Your task to perform on an android device: Clear the cart on costco. Search for "razer blackwidow" on costco, select the first entry, add it to the cart, then select checkout. Image 0: 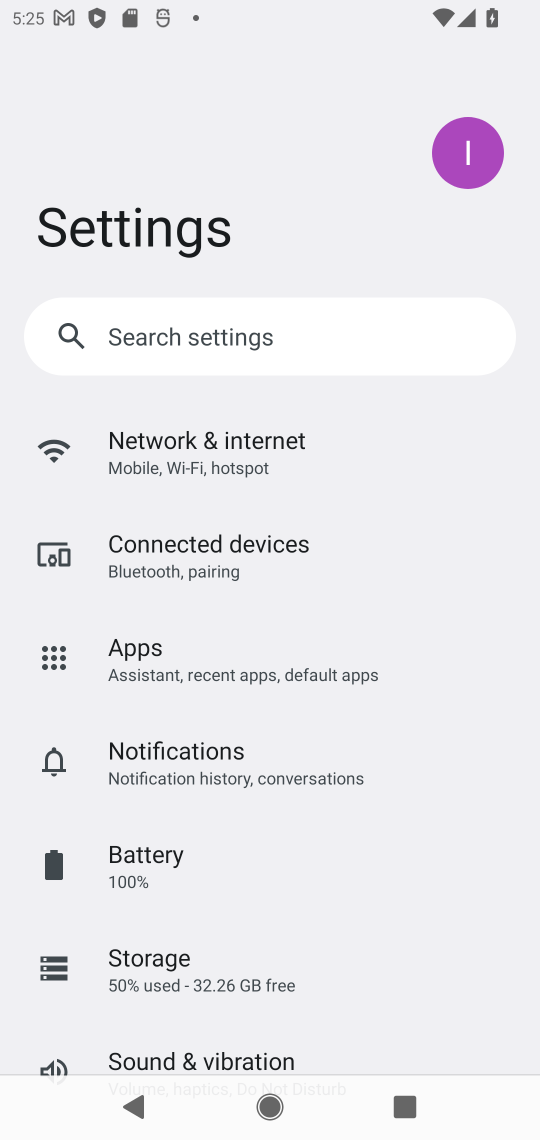
Step 0: press home button
Your task to perform on an android device: Clear the cart on costco. Search for "razer blackwidow" on costco, select the first entry, add it to the cart, then select checkout. Image 1: 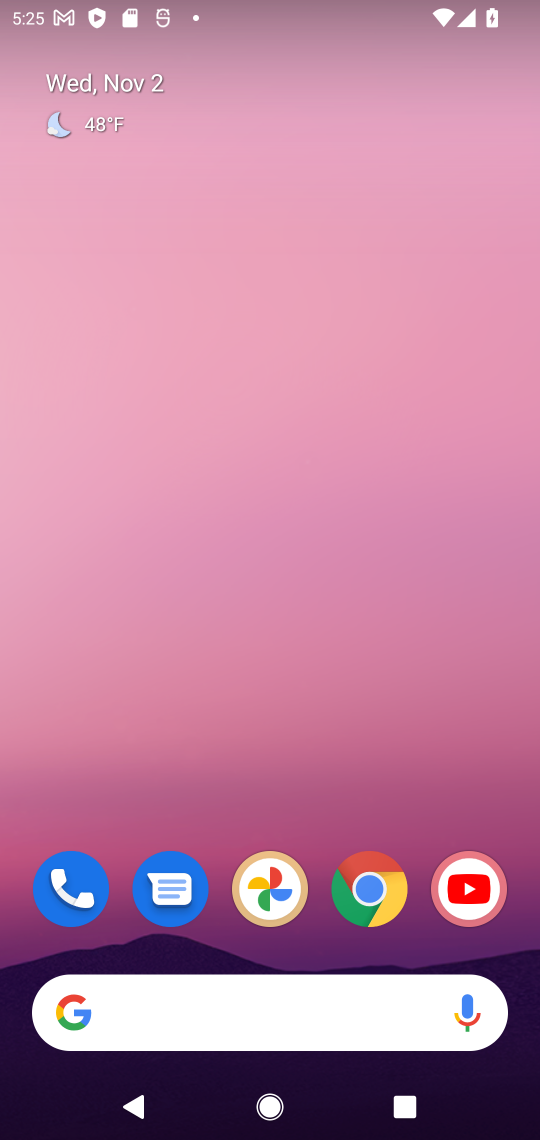
Step 1: click (343, 895)
Your task to perform on an android device: Clear the cart on costco. Search for "razer blackwidow" on costco, select the first entry, add it to the cart, then select checkout. Image 2: 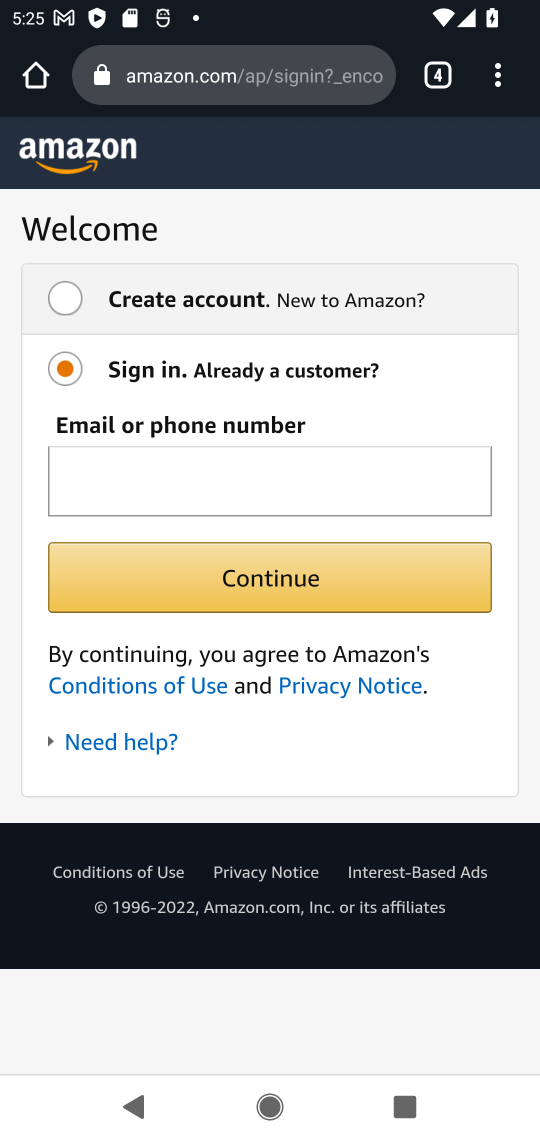
Step 2: click (253, 99)
Your task to perform on an android device: Clear the cart on costco. Search for "razer blackwidow" on costco, select the first entry, add it to the cart, then select checkout. Image 3: 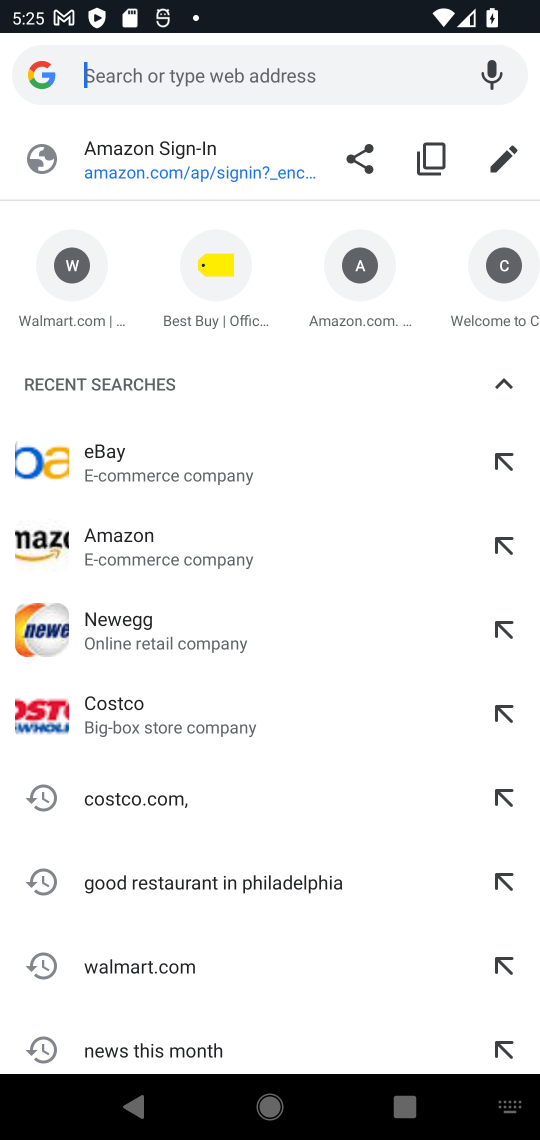
Step 3: type "costco"
Your task to perform on an android device: Clear the cart on costco. Search for "razer blackwidow" on costco, select the first entry, add it to the cart, then select checkout. Image 4: 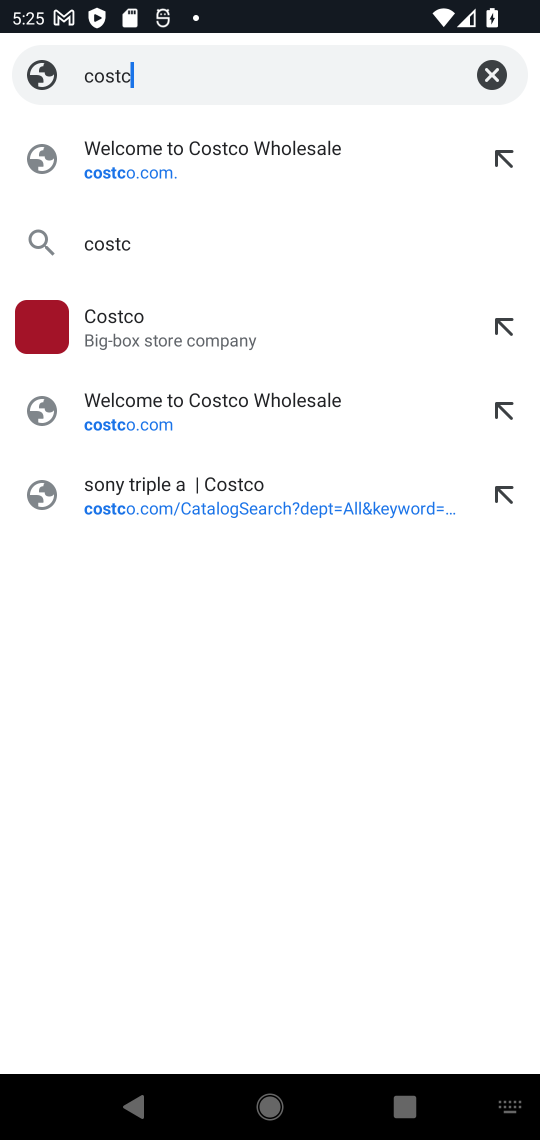
Step 4: press enter
Your task to perform on an android device: Clear the cart on costco. Search for "razer blackwidow" on costco, select the first entry, add it to the cart, then select checkout. Image 5: 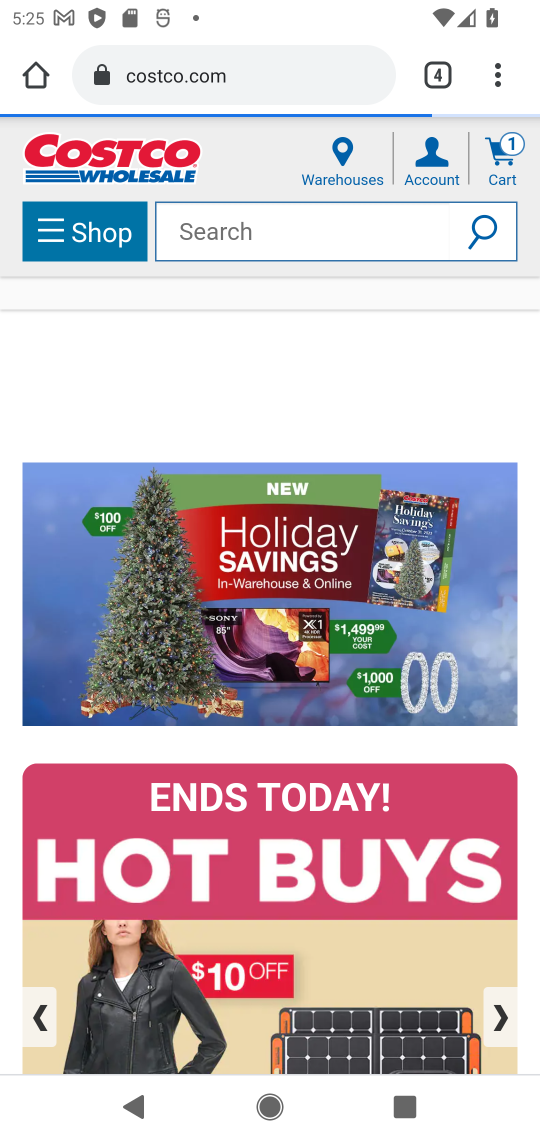
Step 5: click (344, 235)
Your task to perform on an android device: Clear the cart on costco. Search for "razer blackwidow" on costco, select the first entry, add it to the cart, then select checkout. Image 6: 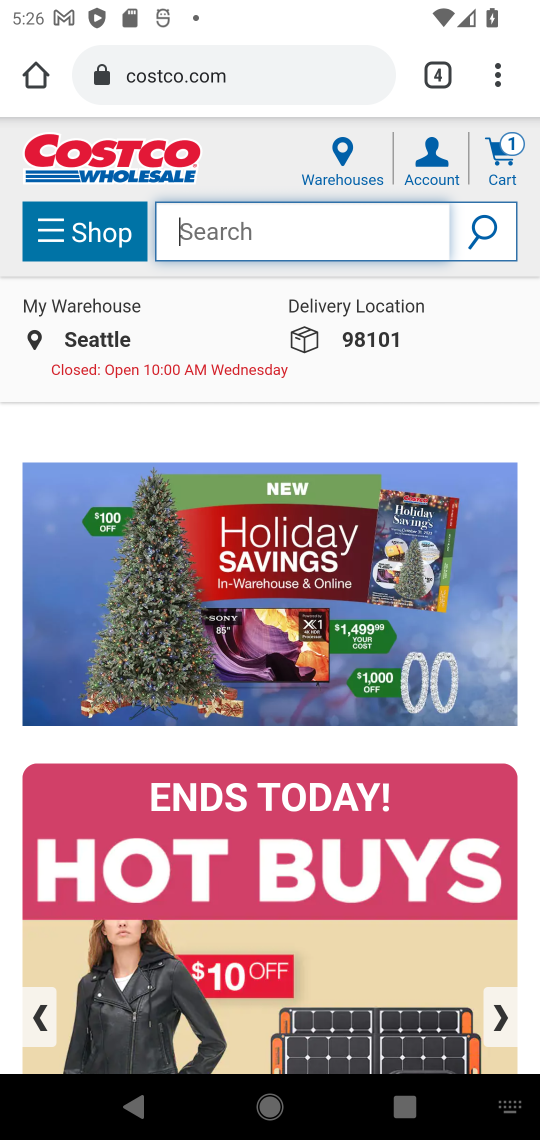
Step 6: type "razer blackwidow"
Your task to perform on an android device: Clear the cart on costco. Search for "razer blackwidow" on costco, select the first entry, add it to the cart, then select checkout. Image 7: 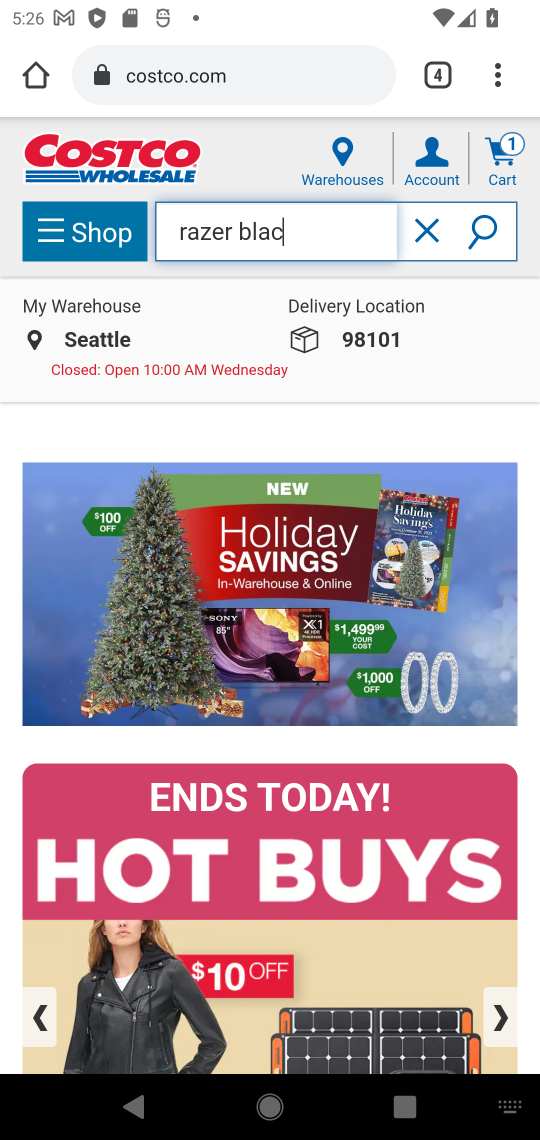
Step 7: press enter
Your task to perform on an android device: Clear the cart on costco. Search for "razer blackwidow" on costco, select the first entry, add it to the cart, then select checkout. Image 8: 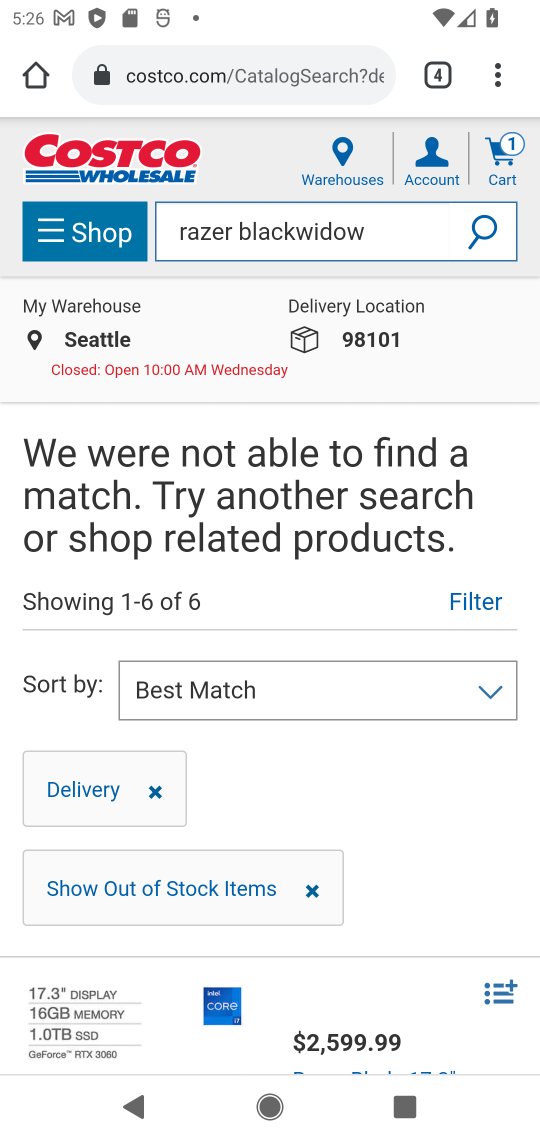
Step 8: task complete